Your task to perform on an android device: find snoozed emails in the gmail app Image 0: 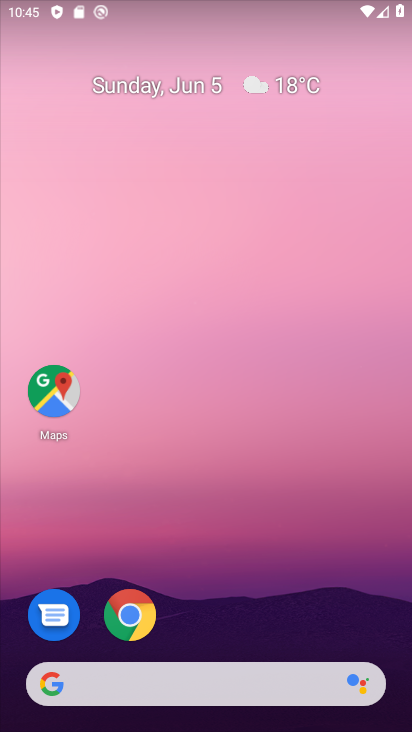
Step 0: drag from (341, 543) to (191, 56)
Your task to perform on an android device: find snoozed emails in the gmail app Image 1: 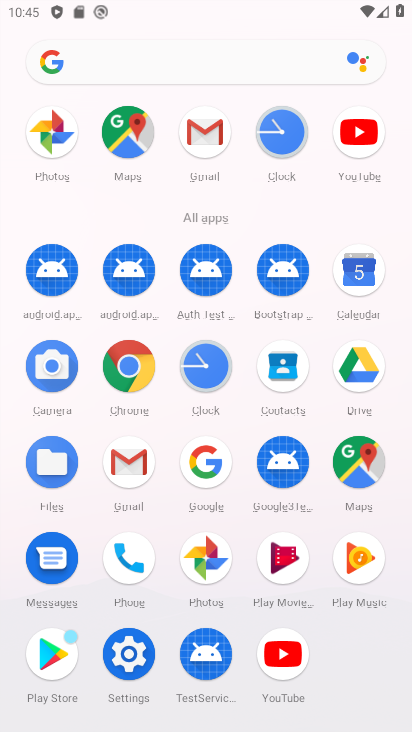
Step 1: click (202, 133)
Your task to perform on an android device: find snoozed emails in the gmail app Image 2: 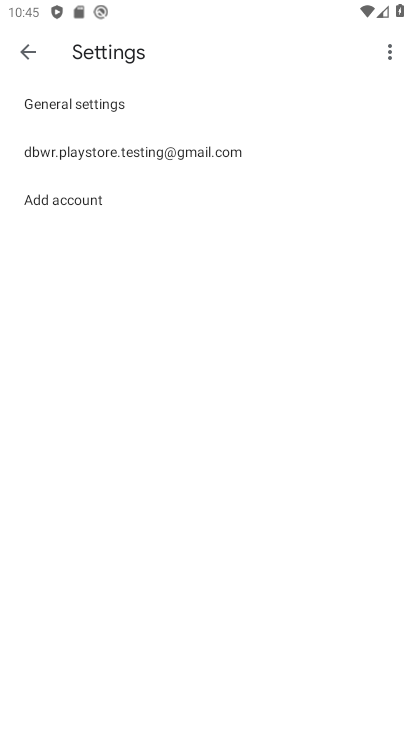
Step 2: click (27, 48)
Your task to perform on an android device: find snoozed emails in the gmail app Image 3: 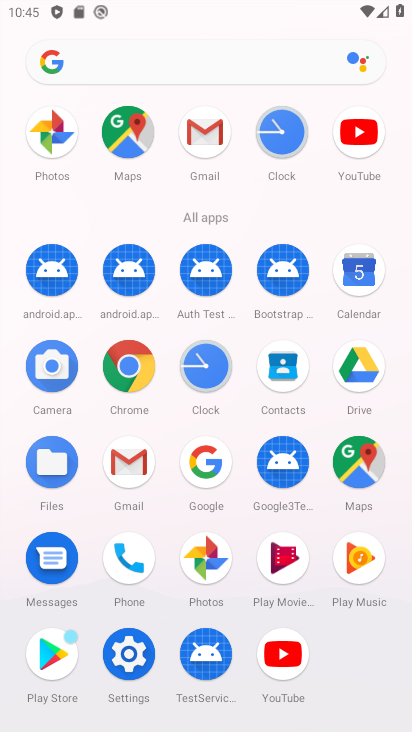
Step 3: click (202, 132)
Your task to perform on an android device: find snoozed emails in the gmail app Image 4: 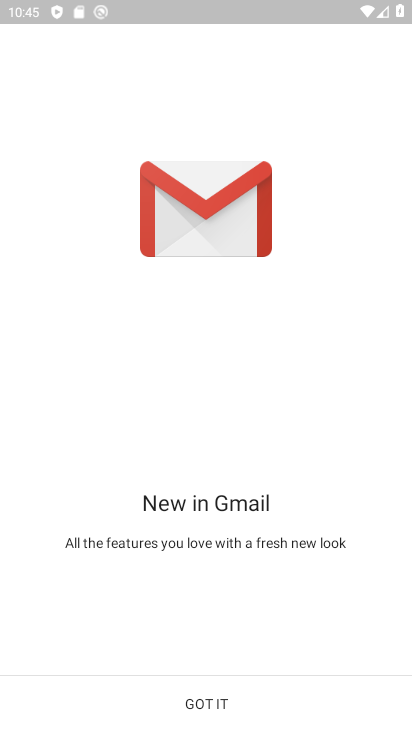
Step 4: click (203, 701)
Your task to perform on an android device: find snoozed emails in the gmail app Image 5: 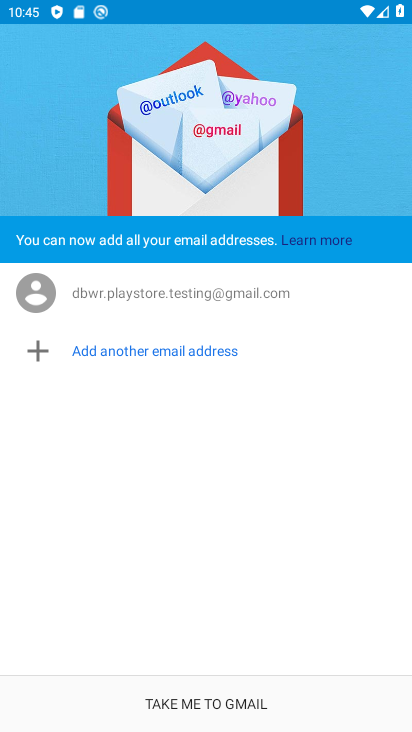
Step 5: click (203, 701)
Your task to perform on an android device: find snoozed emails in the gmail app Image 6: 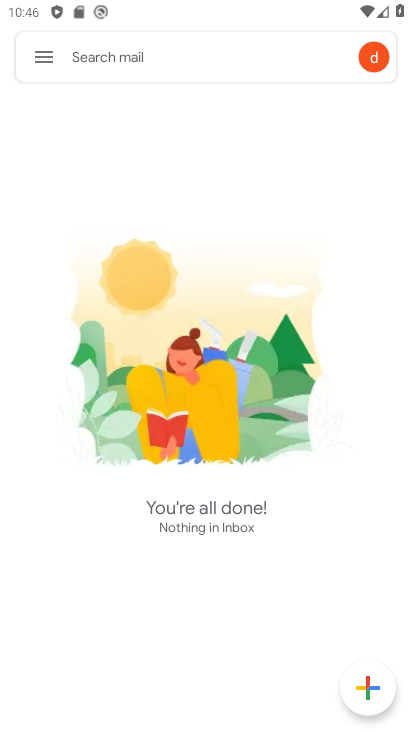
Step 6: click (41, 62)
Your task to perform on an android device: find snoozed emails in the gmail app Image 7: 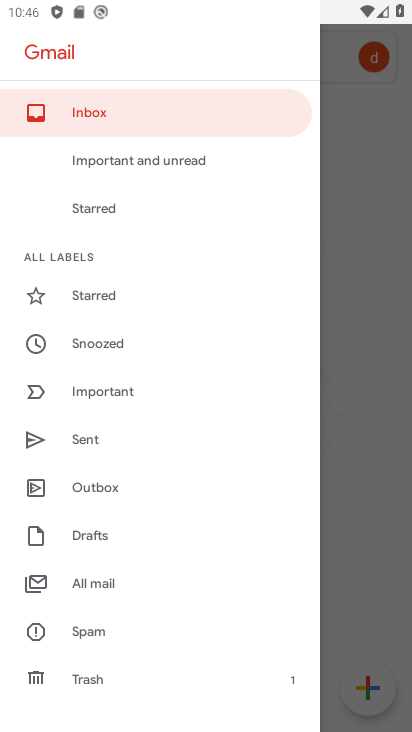
Step 7: click (113, 337)
Your task to perform on an android device: find snoozed emails in the gmail app Image 8: 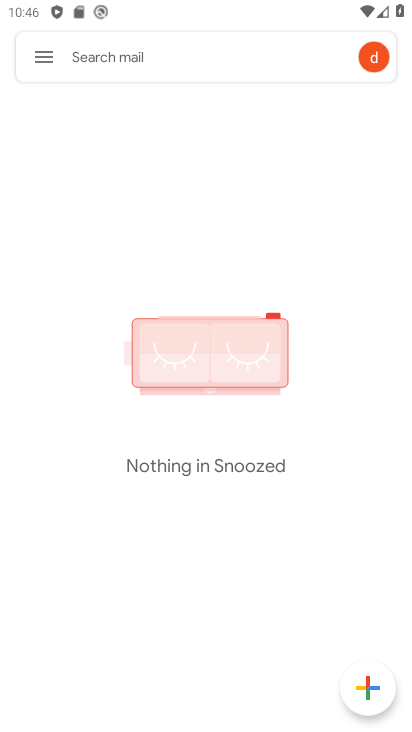
Step 8: task complete